Your task to perform on an android device: Clear the cart on walmart.com. Search for jbl charge 4 on walmart.com, select the first entry, add it to the cart, then select checkout. Image 0: 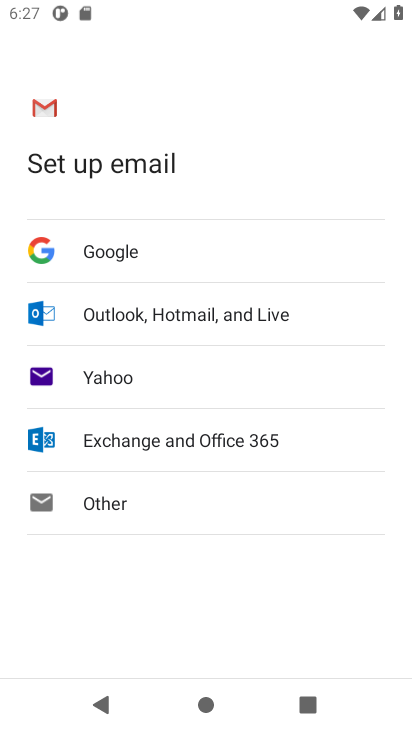
Step 0: press home button
Your task to perform on an android device: Clear the cart on walmart.com. Search for jbl charge 4 on walmart.com, select the first entry, add it to the cart, then select checkout. Image 1: 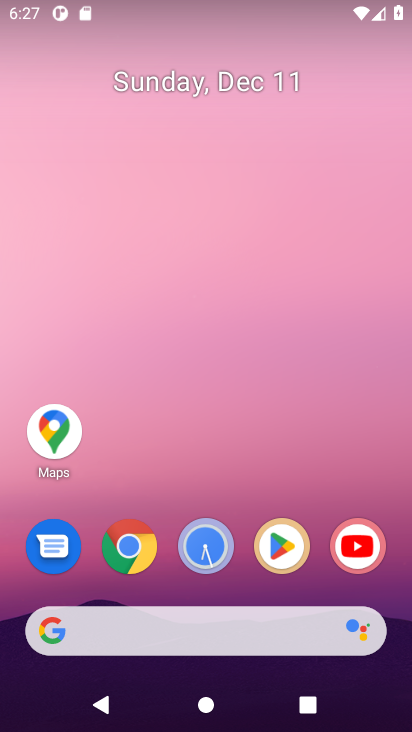
Step 1: drag from (176, 574) to (184, 37)
Your task to perform on an android device: Clear the cart on walmart.com. Search for jbl charge 4 on walmart.com, select the first entry, add it to the cart, then select checkout. Image 2: 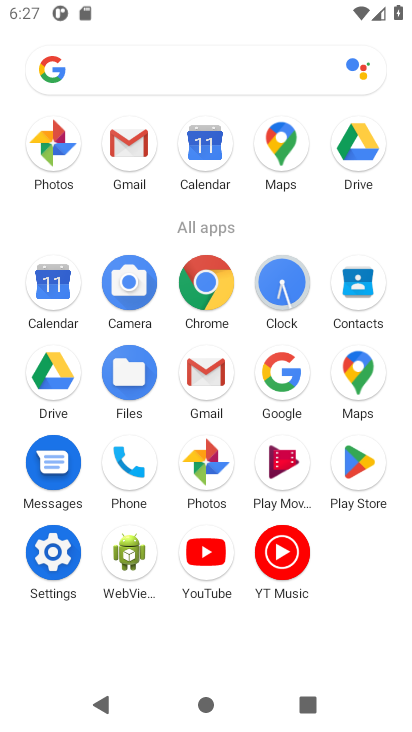
Step 2: click (274, 374)
Your task to perform on an android device: Clear the cart on walmart.com. Search for jbl charge 4 on walmart.com, select the first entry, add it to the cart, then select checkout. Image 3: 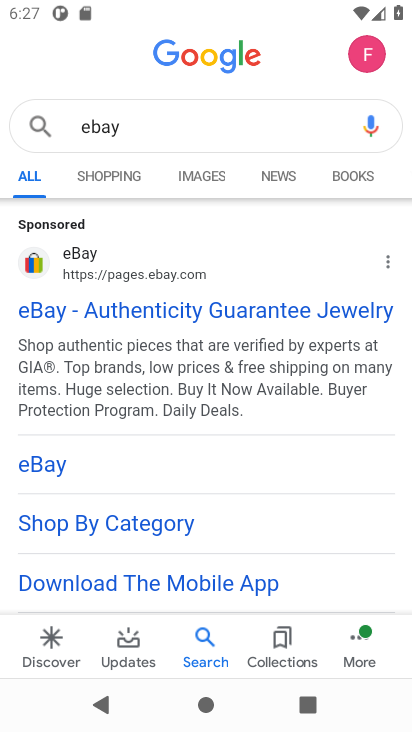
Step 3: click (96, 117)
Your task to perform on an android device: Clear the cart on walmart.com. Search for jbl charge 4 on walmart.com, select the first entry, add it to the cart, then select checkout. Image 4: 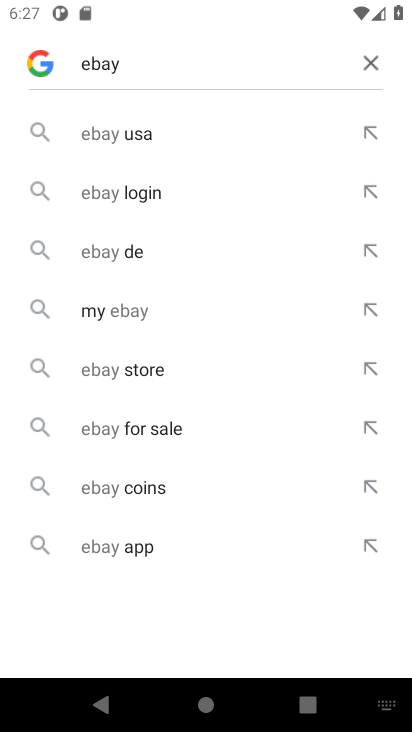
Step 4: click (362, 66)
Your task to perform on an android device: Clear the cart on walmart.com. Search for jbl charge 4 on walmart.com, select the first entry, add it to the cart, then select checkout. Image 5: 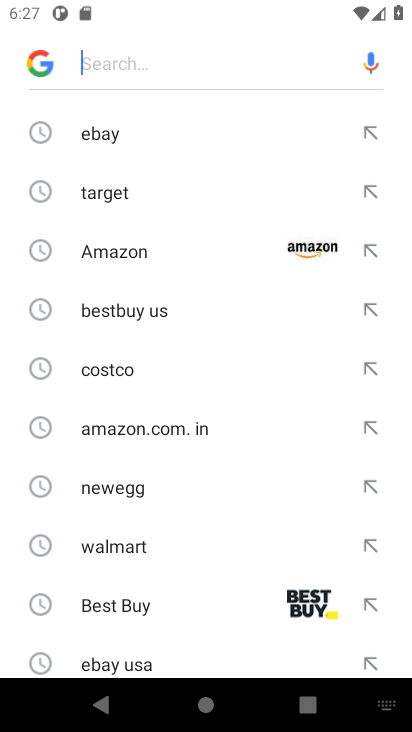
Step 5: click (146, 538)
Your task to perform on an android device: Clear the cart on walmart.com. Search for jbl charge 4 on walmart.com, select the first entry, add it to the cart, then select checkout. Image 6: 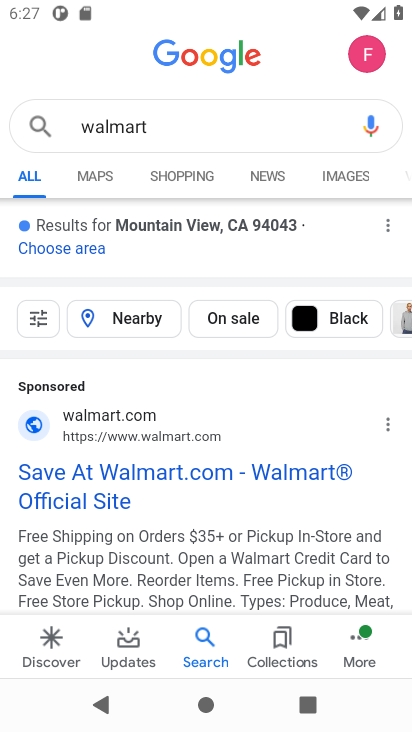
Step 6: click (108, 486)
Your task to perform on an android device: Clear the cart on walmart.com. Search for jbl charge 4 on walmart.com, select the first entry, add it to the cart, then select checkout. Image 7: 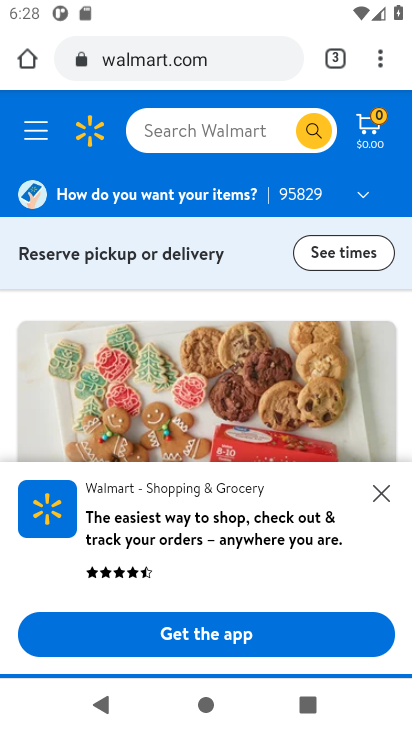
Step 7: click (160, 131)
Your task to perform on an android device: Clear the cart on walmart.com. Search for jbl charge 4 on walmart.com, select the first entry, add it to the cart, then select checkout. Image 8: 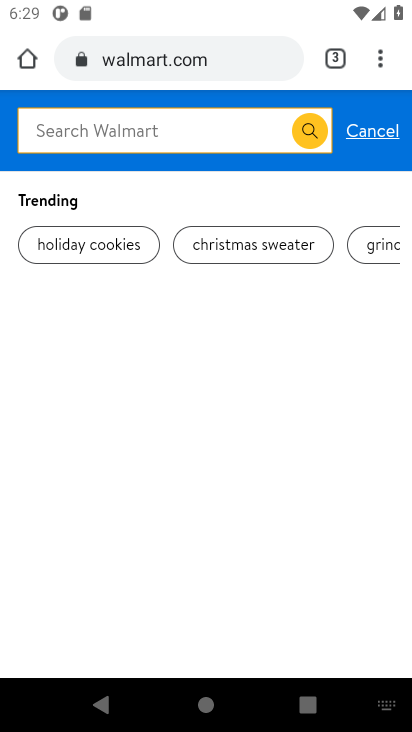
Step 8: click (75, 132)
Your task to perform on an android device: Clear the cart on walmart.com. Search for jbl charge 4 on walmart.com, select the first entry, add it to the cart, then select checkout. Image 9: 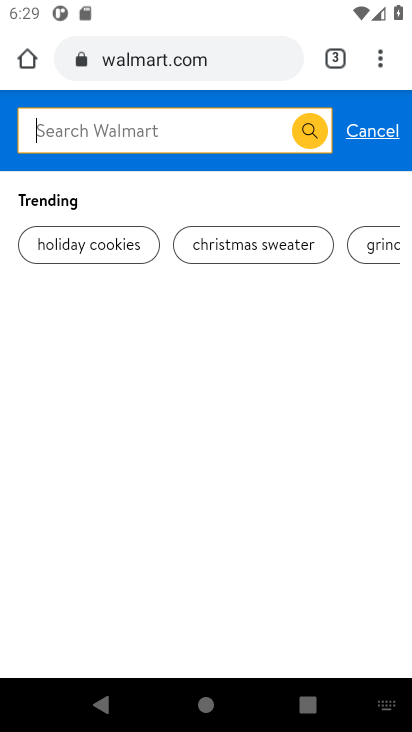
Step 9: type "jbl charge 4"
Your task to perform on an android device: Clear the cart on walmart.com. Search for jbl charge 4 on walmart.com, select the first entry, add it to the cart, then select checkout. Image 10: 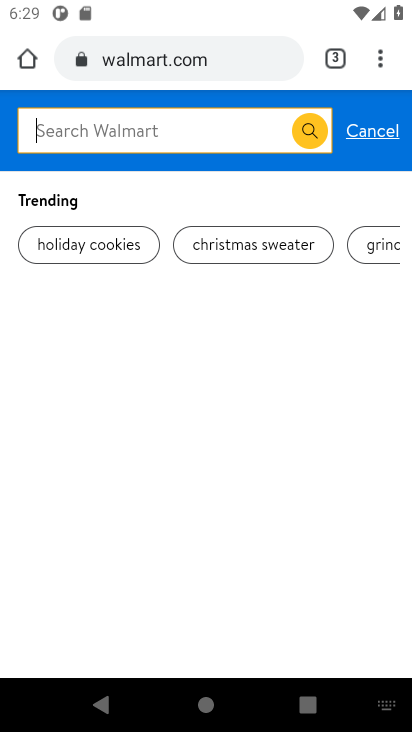
Step 10: click (317, 128)
Your task to perform on an android device: Clear the cart on walmart.com. Search for jbl charge 4 on walmart.com, select the first entry, add it to the cart, then select checkout. Image 11: 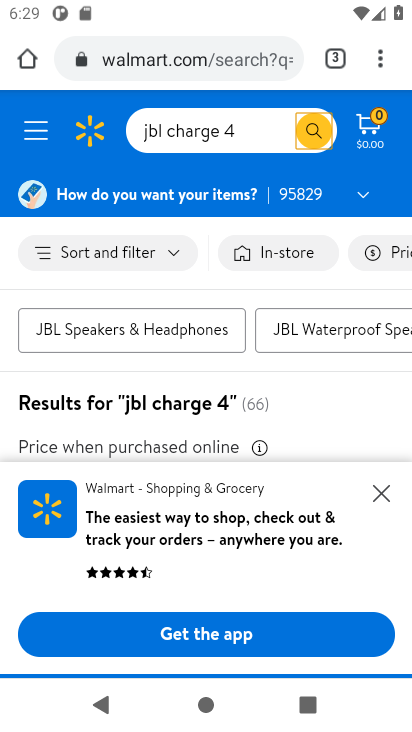
Step 11: click (386, 484)
Your task to perform on an android device: Clear the cart on walmart.com. Search for jbl charge 4 on walmart.com, select the first entry, add it to the cart, then select checkout. Image 12: 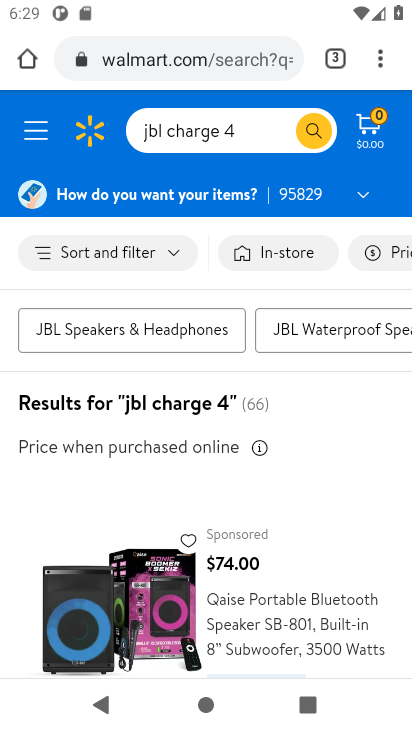
Step 12: drag from (190, 339) to (161, 176)
Your task to perform on an android device: Clear the cart on walmart.com. Search for jbl charge 4 on walmart.com, select the first entry, add it to the cart, then select checkout. Image 13: 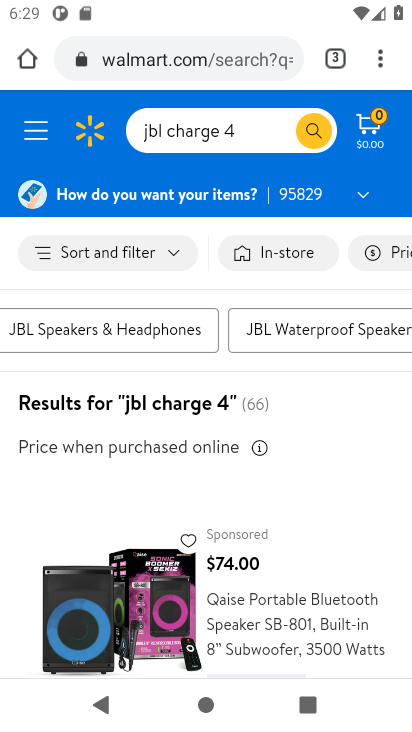
Step 13: drag from (260, 627) to (236, 244)
Your task to perform on an android device: Clear the cart on walmart.com. Search for jbl charge 4 on walmart.com, select the first entry, add it to the cart, then select checkout. Image 14: 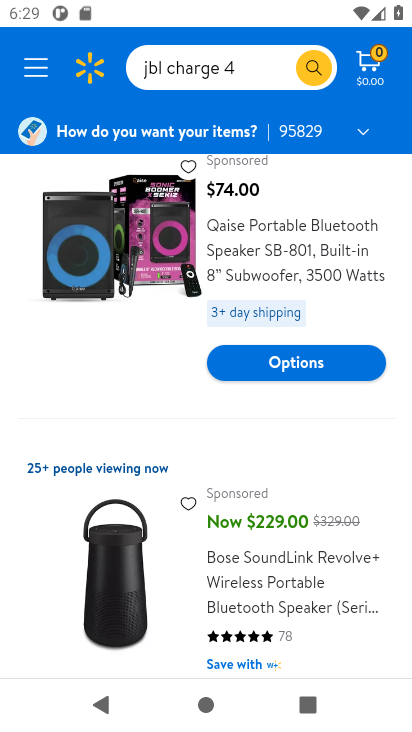
Step 14: click (300, 353)
Your task to perform on an android device: Clear the cart on walmart.com. Search for jbl charge 4 on walmart.com, select the first entry, add it to the cart, then select checkout. Image 15: 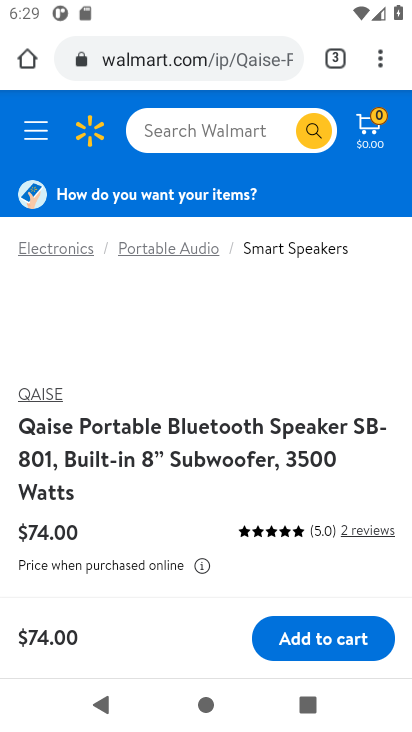
Step 15: click (357, 644)
Your task to perform on an android device: Clear the cart on walmart.com. Search for jbl charge 4 on walmart.com, select the first entry, add it to the cart, then select checkout. Image 16: 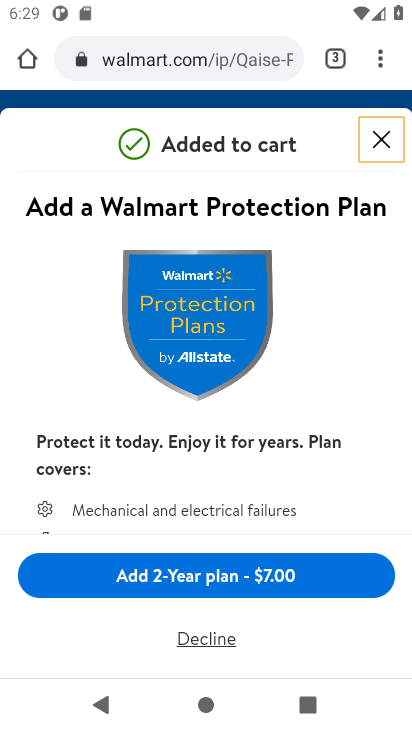
Step 16: click (391, 138)
Your task to perform on an android device: Clear the cart on walmart.com. Search for jbl charge 4 on walmart.com, select the first entry, add it to the cart, then select checkout. Image 17: 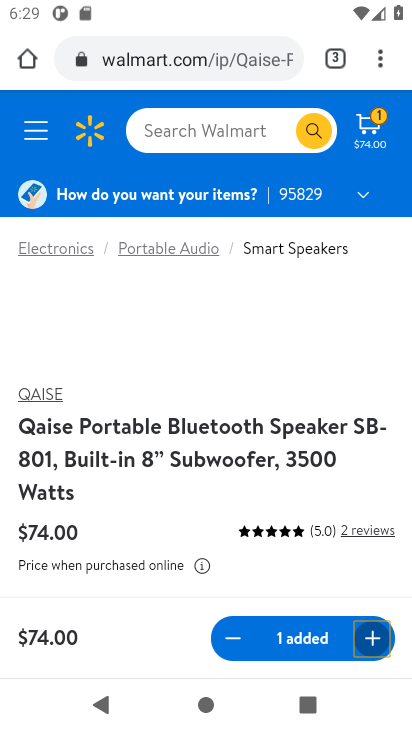
Step 17: click (364, 109)
Your task to perform on an android device: Clear the cart on walmart.com. Search for jbl charge 4 on walmart.com, select the first entry, add it to the cart, then select checkout. Image 18: 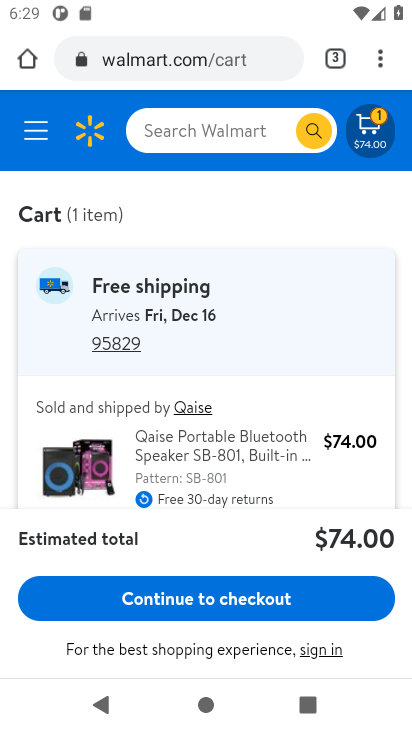
Step 18: click (211, 598)
Your task to perform on an android device: Clear the cart on walmart.com. Search for jbl charge 4 on walmart.com, select the first entry, add it to the cart, then select checkout. Image 19: 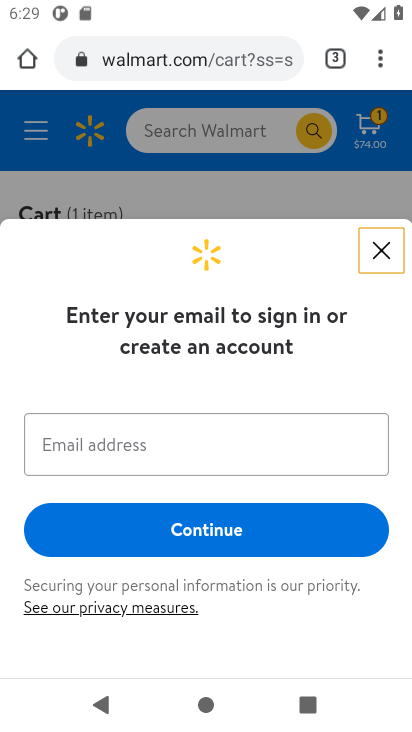
Step 19: task complete